Your task to perform on an android device: What's the price of the Sony TV? Image 0: 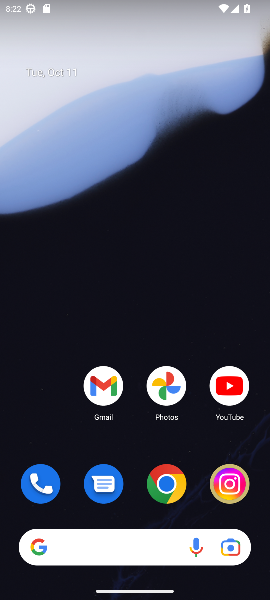
Step 0: click (166, 486)
Your task to perform on an android device: What's the price of the Sony TV? Image 1: 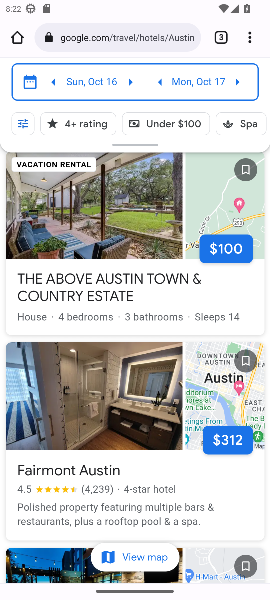
Step 1: click (171, 42)
Your task to perform on an android device: What's the price of the Sony TV? Image 2: 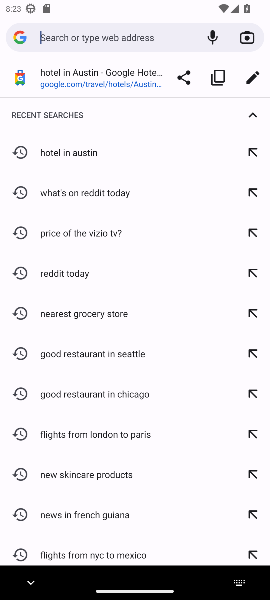
Step 2: type "price of the Sony TV?"
Your task to perform on an android device: What's the price of the Sony TV? Image 3: 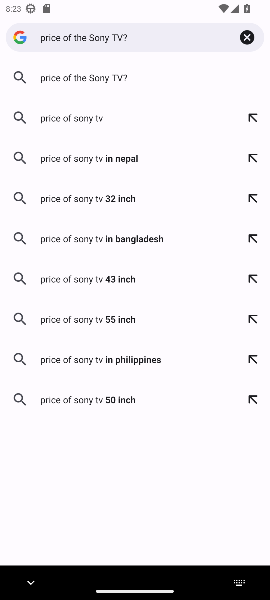
Step 3: click (101, 75)
Your task to perform on an android device: What's the price of the Sony TV? Image 4: 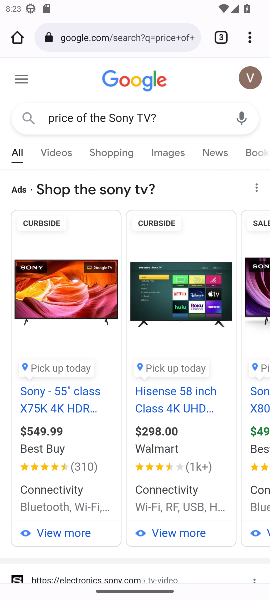
Step 4: task complete